Your task to perform on an android device: turn vacation reply on in the gmail app Image 0: 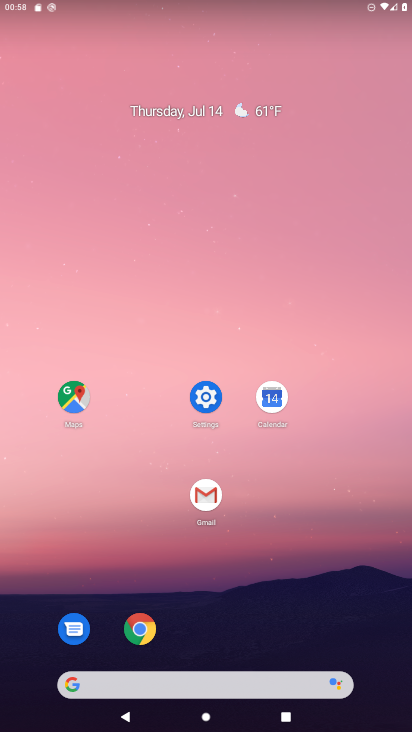
Step 0: click (207, 492)
Your task to perform on an android device: turn vacation reply on in the gmail app Image 1: 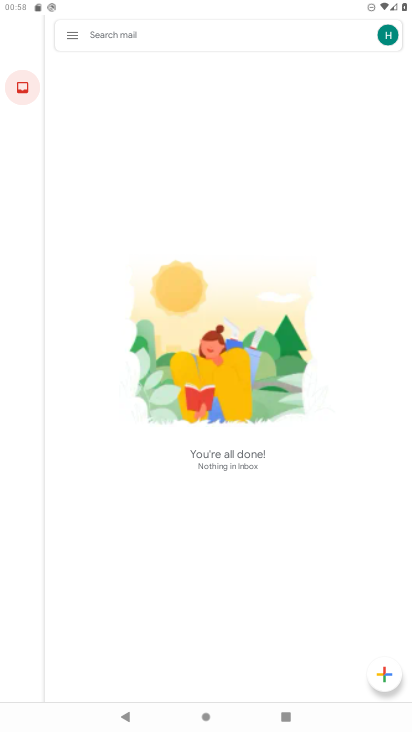
Step 1: click (65, 32)
Your task to perform on an android device: turn vacation reply on in the gmail app Image 2: 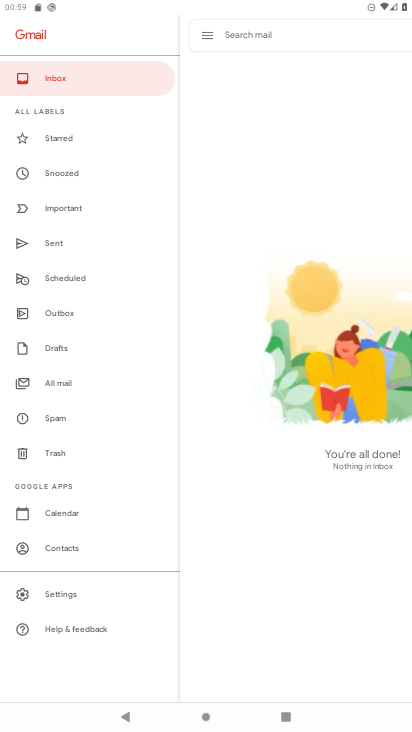
Step 2: click (76, 595)
Your task to perform on an android device: turn vacation reply on in the gmail app Image 3: 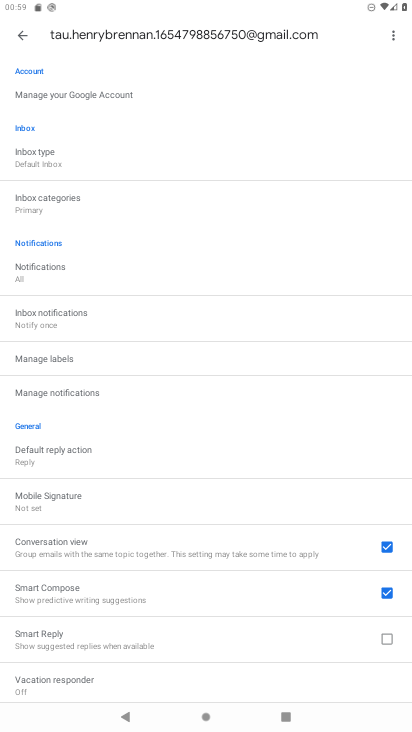
Step 3: click (89, 681)
Your task to perform on an android device: turn vacation reply on in the gmail app Image 4: 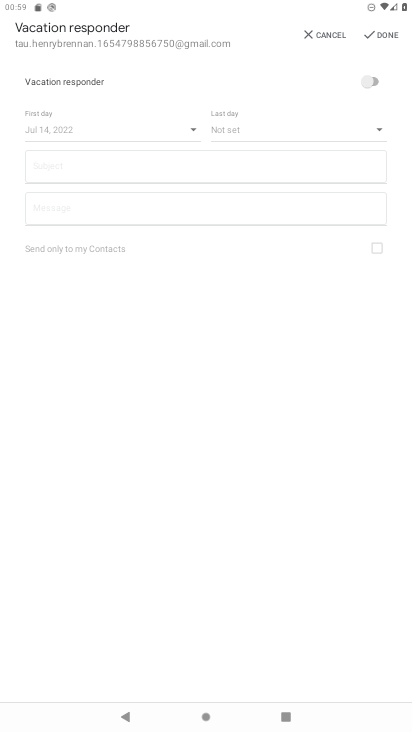
Step 4: click (369, 85)
Your task to perform on an android device: turn vacation reply on in the gmail app Image 5: 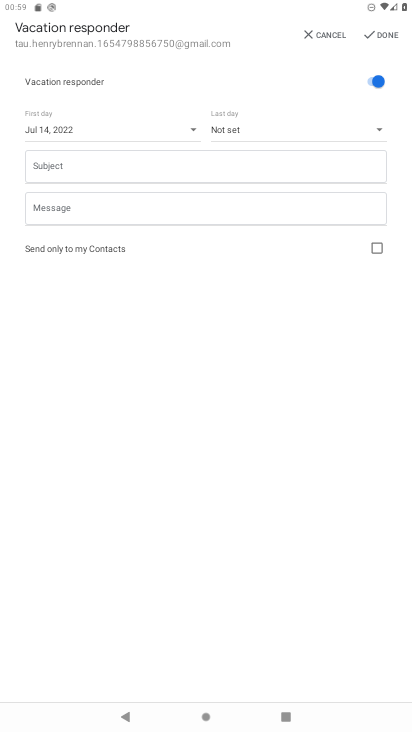
Step 5: task complete